Your task to perform on an android device: Go to display settings Image 0: 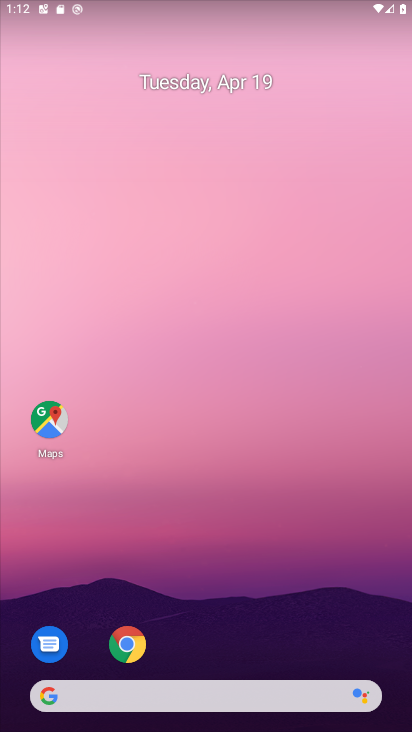
Step 0: drag from (241, 654) to (280, 46)
Your task to perform on an android device: Go to display settings Image 1: 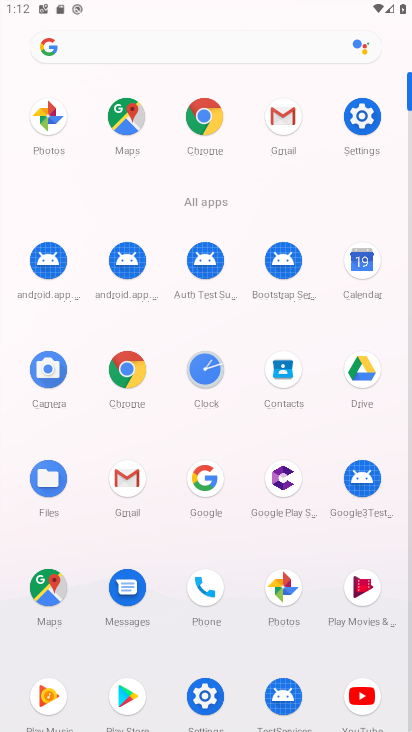
Step 1: click (359, 121)
Your task to perform on an android device: Go to display settings Image 2: 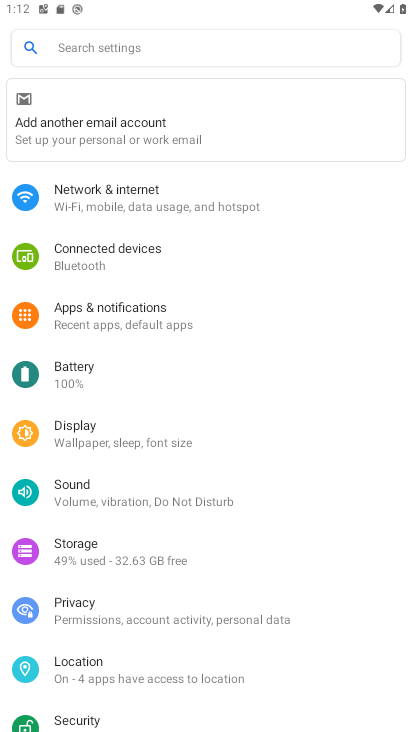
Step 2: click (104, 434)
Your task to perform on an android device: Go to display settings Image 3: 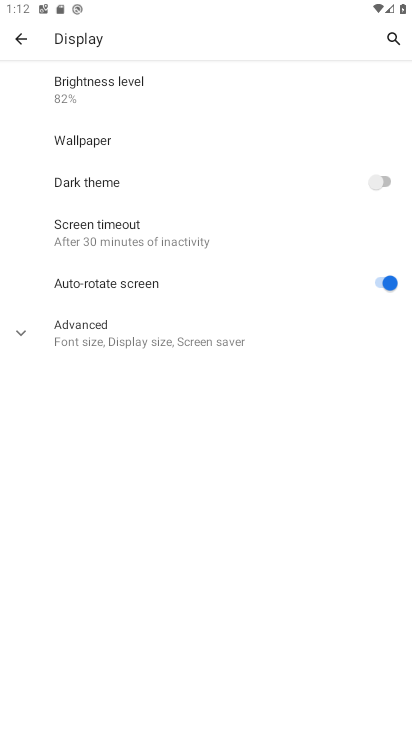
Step 3: task complete